Your task to perform on an android device: install app "Cash App" Image 0: 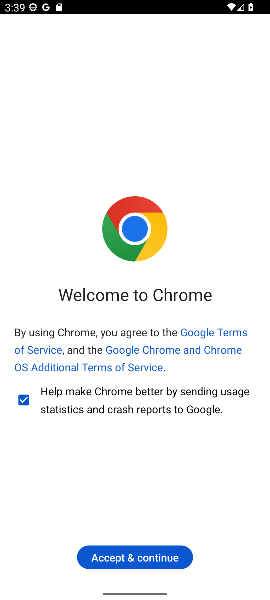
Step 0: press home button
Your task to perform on an android device: install app "Cash App" Image 1: 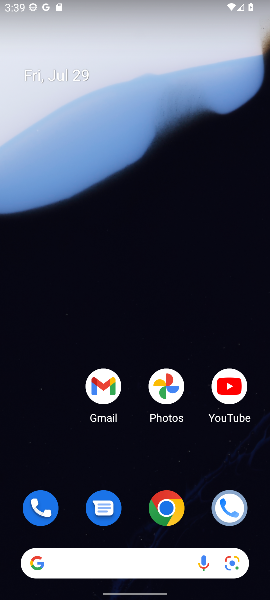
Step 1: drag from (234, 503) to (98, 92)
Your task to perform on an android device: install app "Cash App" Image 2: 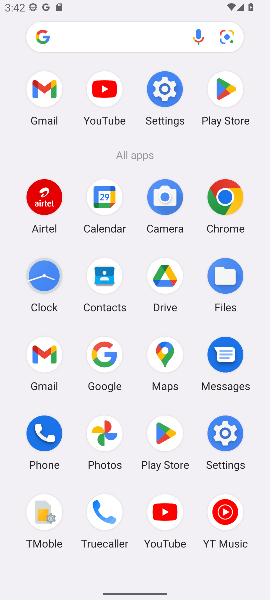
Step 2: click (160, 424)
Your task to perform on an android device: install app "Cash App" Image 3: 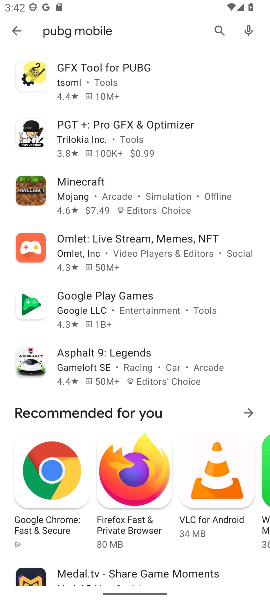
Step 3: press back button
Your task to perform on an android device: install app "Cash App" Image 4: 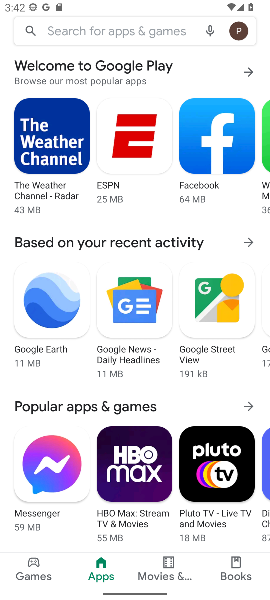
Step 4: click (120, 28)
Your task to perform on an android device: install app "Cash App" Image 5: 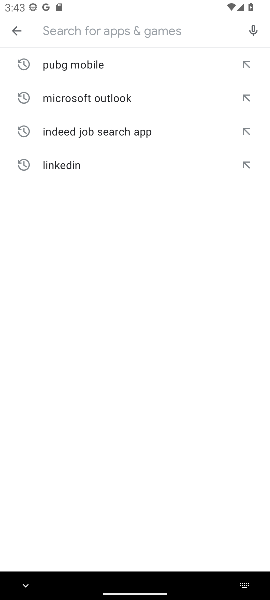
Step 5: type "Cash App"
Your task to perform on an android device: install app "Cash App" Image 6: 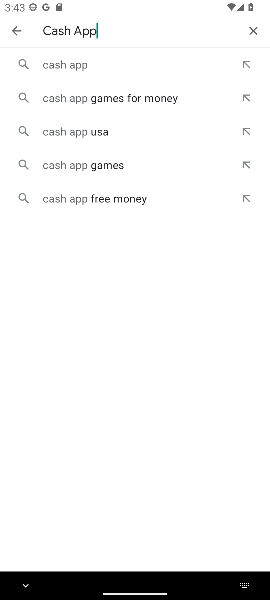
Step 6: click (73, 65)
Your task to perform on an android device: install app "Cash App" Image 7: 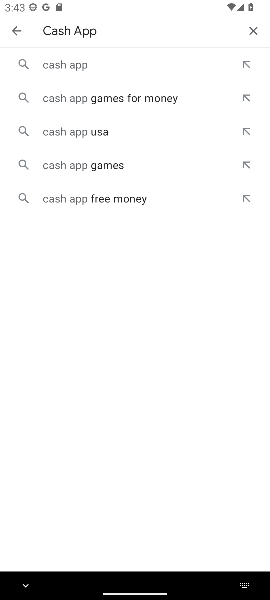
Step 7: click (87, 62)
Your task to perform on an android device: install app "Cash App" Image 8: 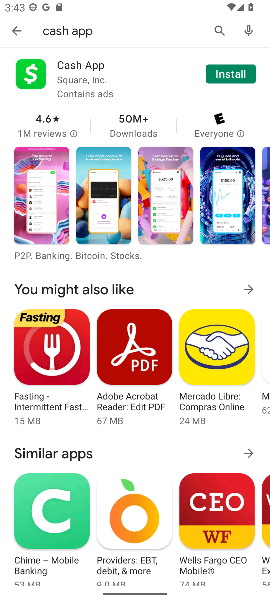
Step 8: click (221, 68)
Your task to perform on an android device: install app "Cash App" Image 9: 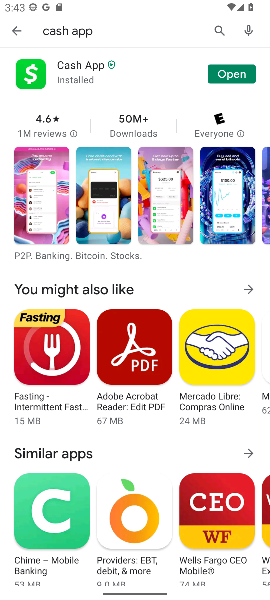
Step 9: task complete